Your task to perform on an android device: stop showing notifications on the lock screen Image 0: 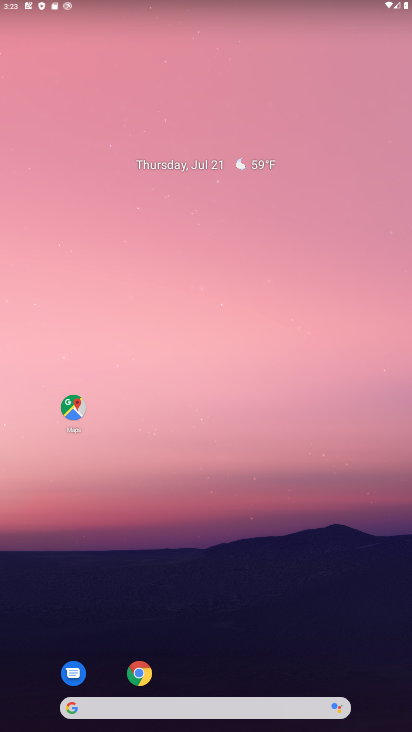
Step 0: drag from (268, 676) to (120, 4)
Your task to perform on an android device: stop showing notifications on the lock screen Image 1: 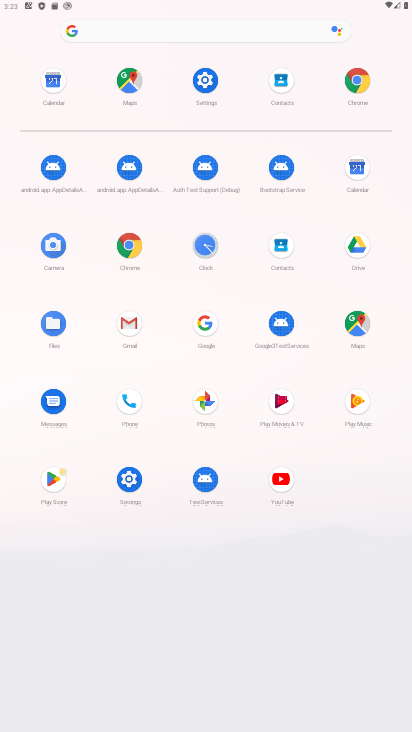
Step 1: click (208, 83)
Your task to perform on an android device: stop showing notifications on the lock screen Image 2: 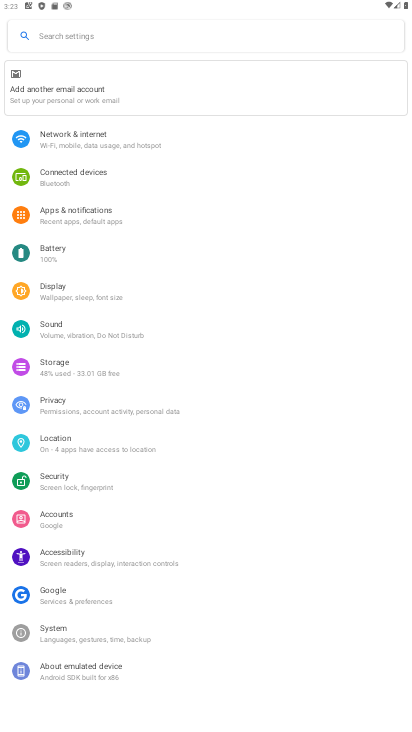
Step 2: click (139, 207)
Your task to perform on an android device: stop showing notifications on the lock screen Image 3: 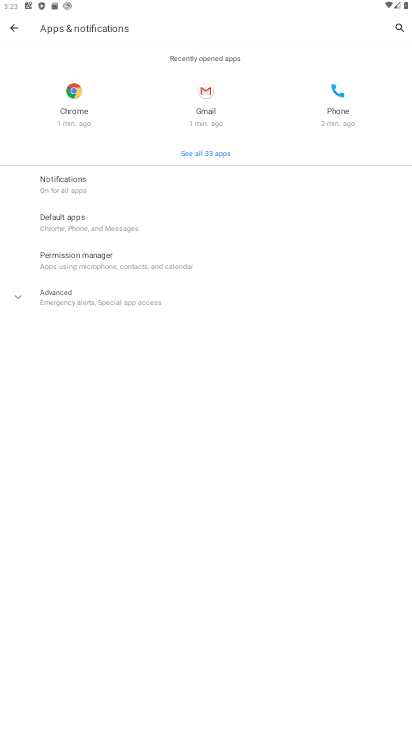
Step 3: click (119, 189)
Your task to perform on an android device: stop showing notifications on the lock screen Image 4: 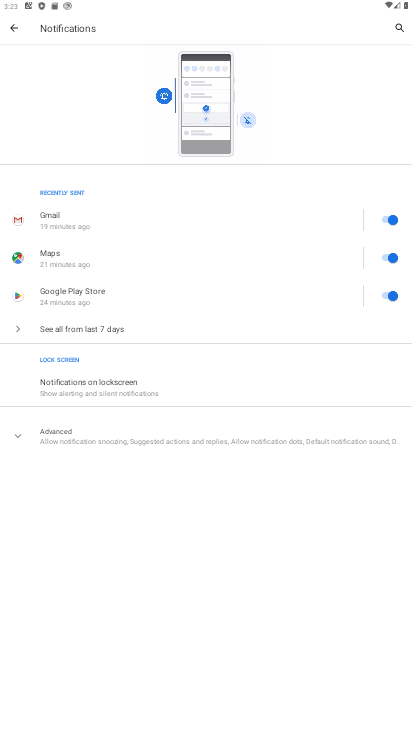
Step 4: click (161, 378)
Your task to perform on an android device: stop showing notifications on the lock screen Image 5: 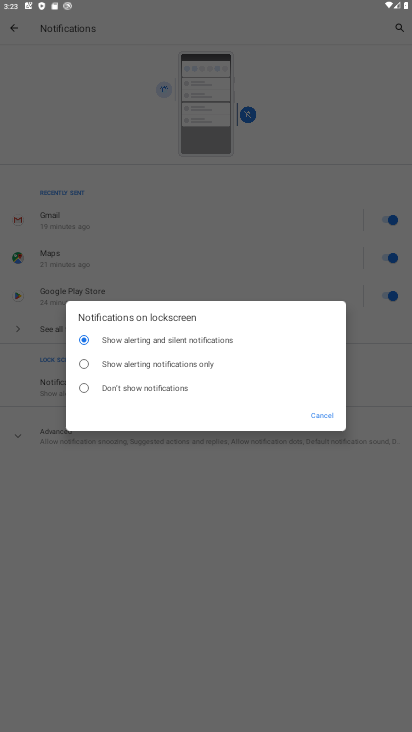
Step 5: click (157, 383)
Your task to perform on an android device: stop showing notifications on the lock screen Image 6: 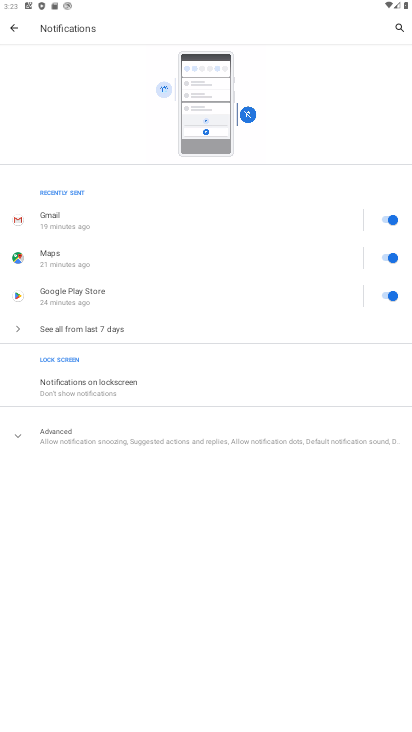
Step 6: task complete